Your task to perform on an android device: Go to CNN.com Image 0: 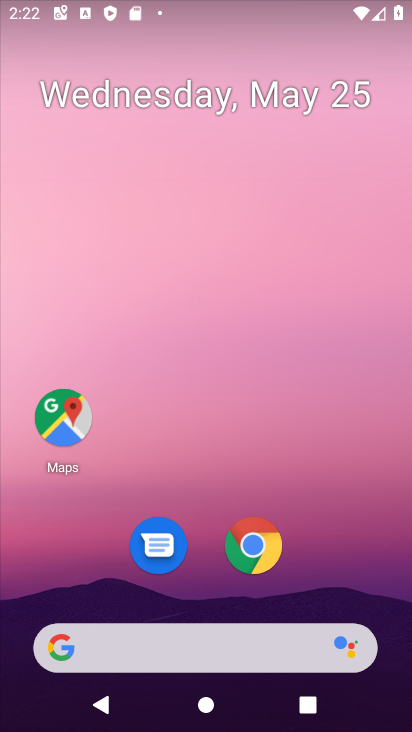
Step 0: click (264, 638)
Your task to perform on an android device: Go to CNN.com Image 1: 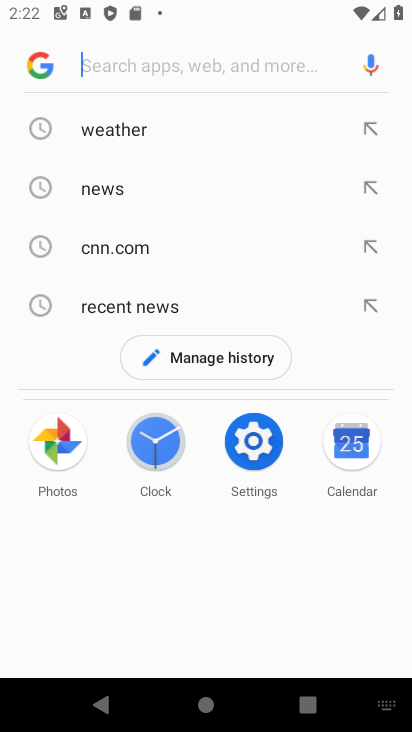
Step 1: click (149, 259)
Your task to perform on an android device: Go to CNN.com Image 2: 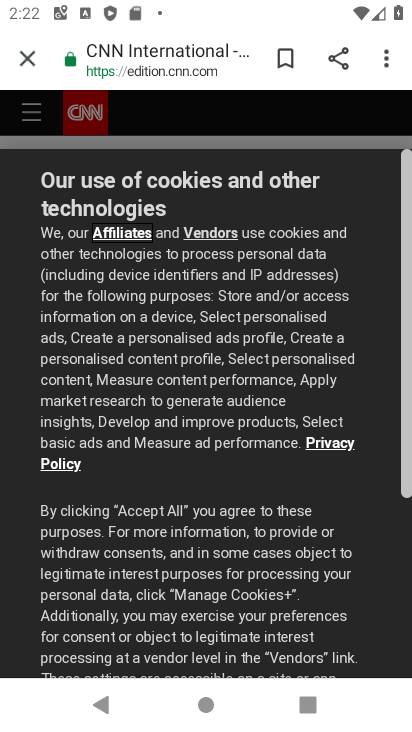
Step 2: task complete